Your task to perform on an android device: turn off data saver in the chrome app Image 0: 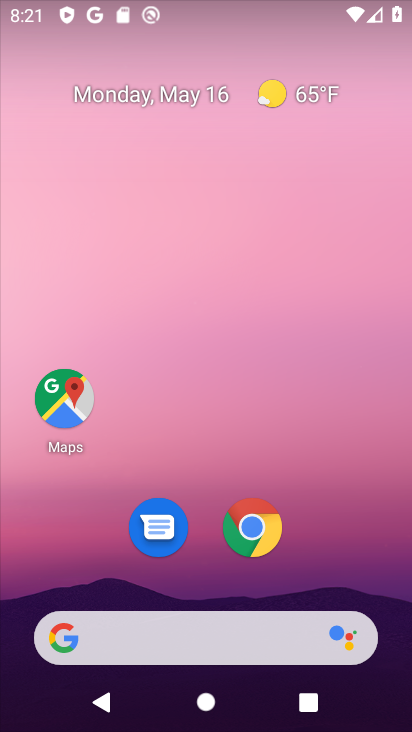
Step 0: drag from (309, 598) to (329, 248)
Your task to perform on an android device: turn off data saver in the chrome app Image 1: 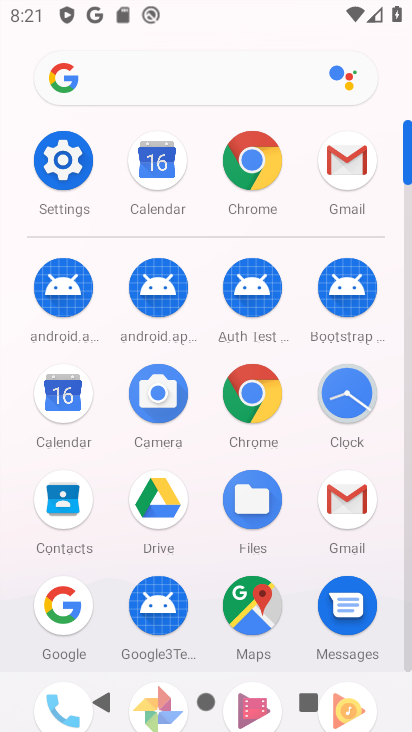
Step 1: click (243, 160)
Your task to perform on an android device: turn off data saver in the chrome app Image 2: 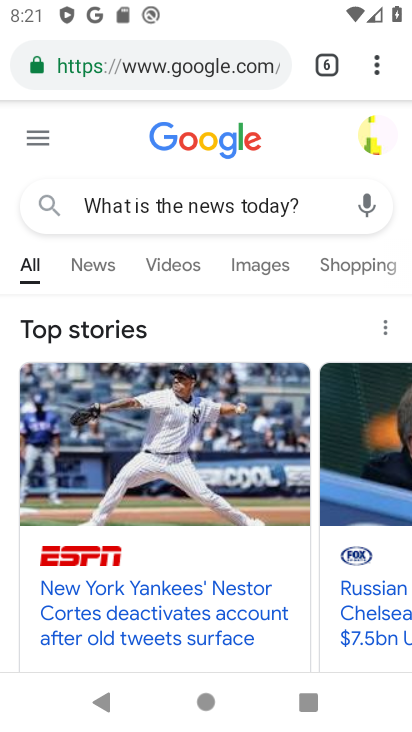
Step 2: click (372, 64)
Your task to perform on an android device: turn off data saver in the chrome app Image 3: 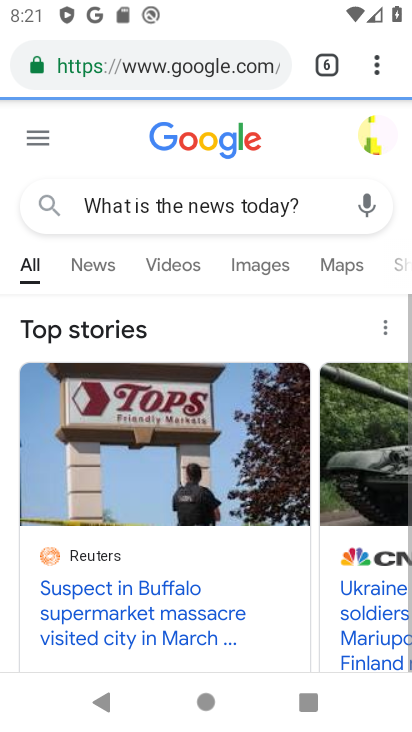
Step 3: click (369, 64)
Your task to perform on an android device: turn off data saver in the chrome app Image 4: 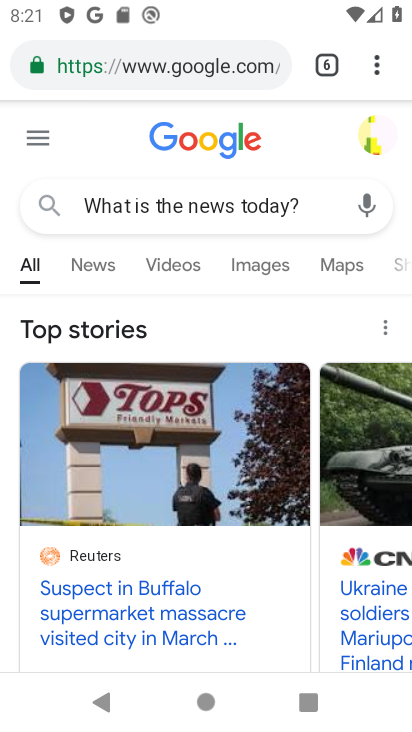
Step 4: click (355, 57)
Your task to perform on an android device: turn off data saver in the chrome app Image 5: 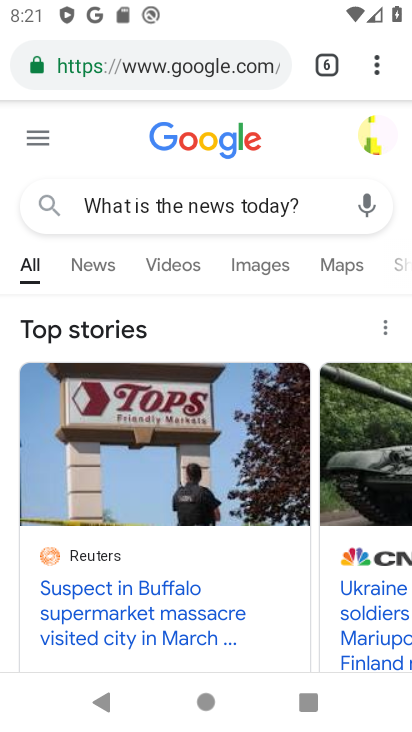
Step 5: click (370, 57)
Your task to perform on an android device: turn off data saver in the chrome app Image 6: 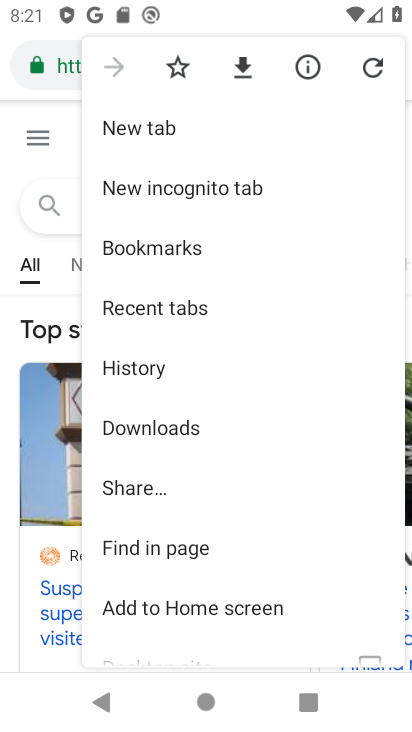
Step 6: drag from (261, 535) to (281, 191)
Your task to perform on an android device: turn off data saver in the chrome app Image 7: 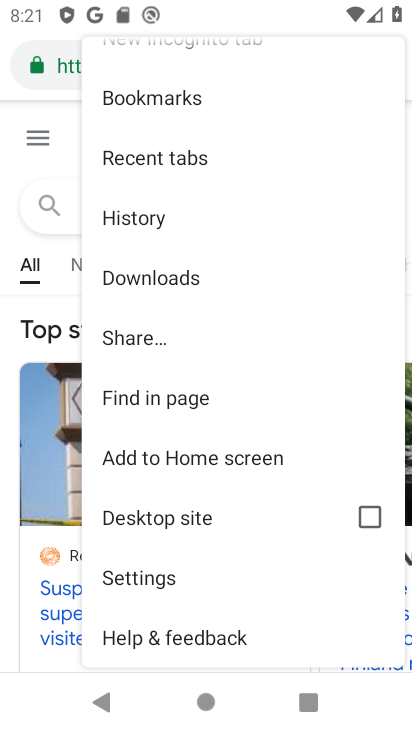
Step 7: click (124, 576)
Your task to perform on an android device: turn off data saver in the chrome app Image 8: 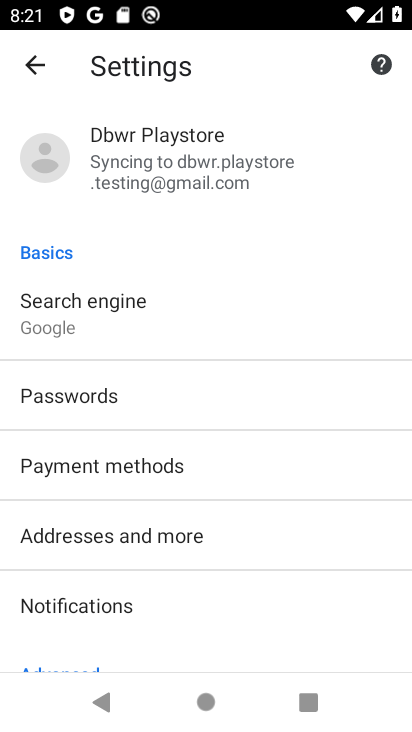
Step 8: drag from (173, 578) to (230, 283)
Your task to perform on an android device: turn off data saver in the chrome app Image 9: 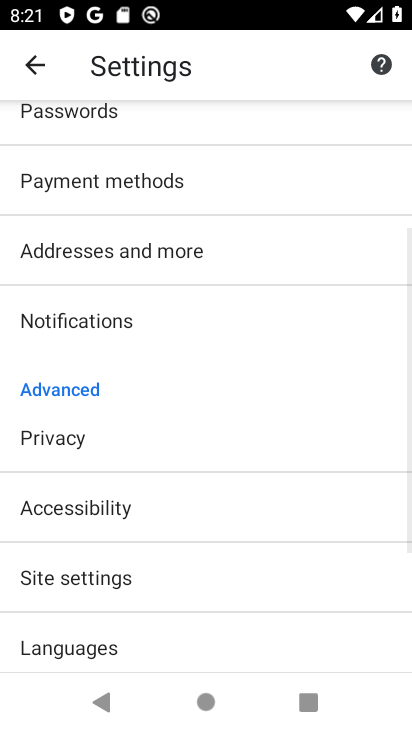
Step 9: drag from (89, 576) to (162, 336)
Your task to perform on an android device: turn off data saver in the chrome app Image 10: 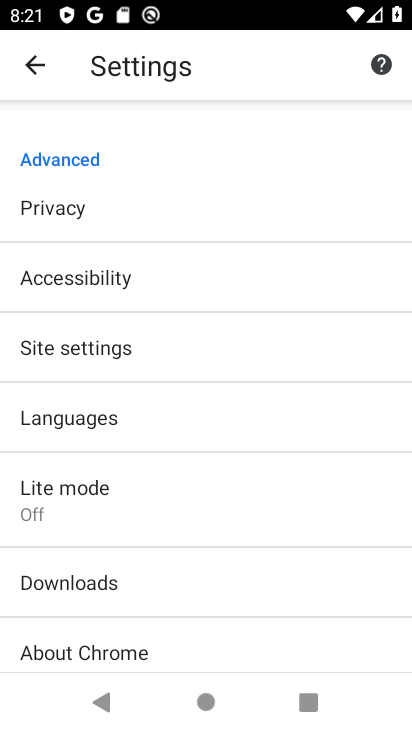
Step 10: click (71, 490)
Your task to perform on an android device: turn off data saver in the chrome app Image 11: 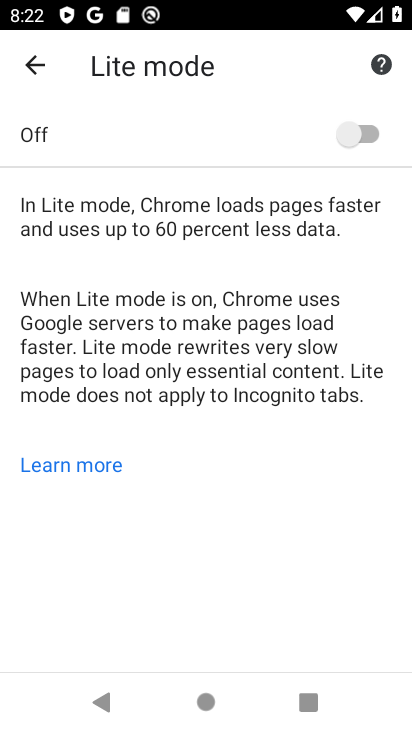
Step 11: task complete